Your task to perform on an android device: Show me recent news Image 0: 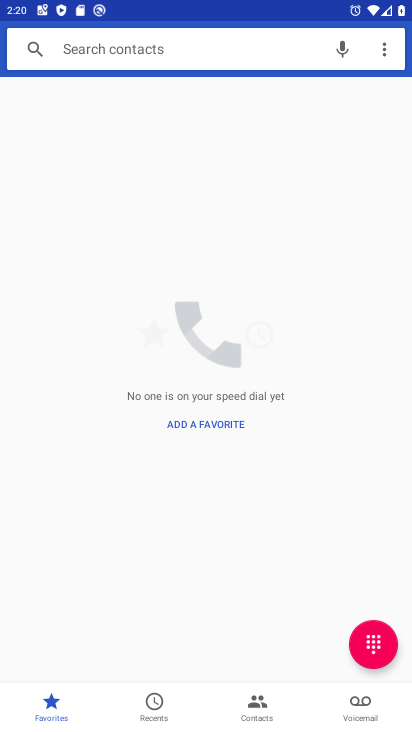
Step 0: press home button
Your task to perform on an android device: Show me recent news Image 1: 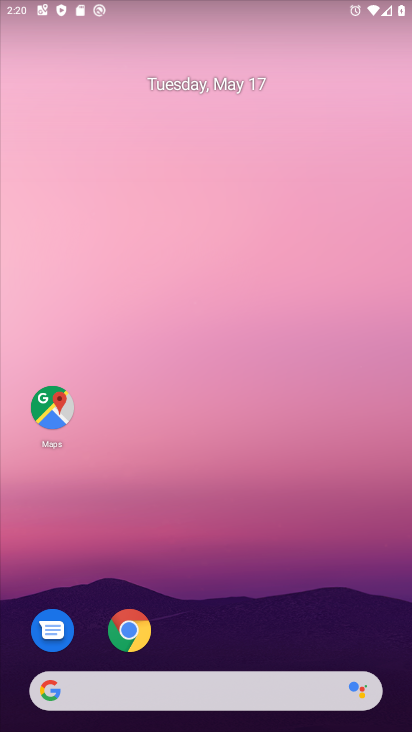
Step 1: drag from (347, 633) to (291, 235)
Your task to perform on an android device: Show me recent news Image 2: 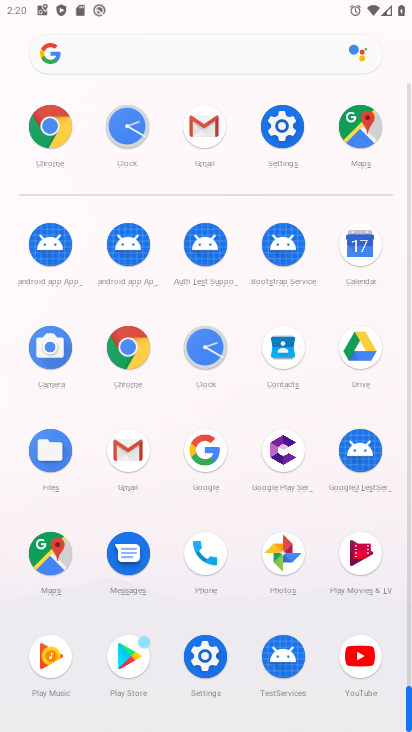
Step 2: click (141, 354)
Your task to perform on an android device: Show me recent news Image 3: 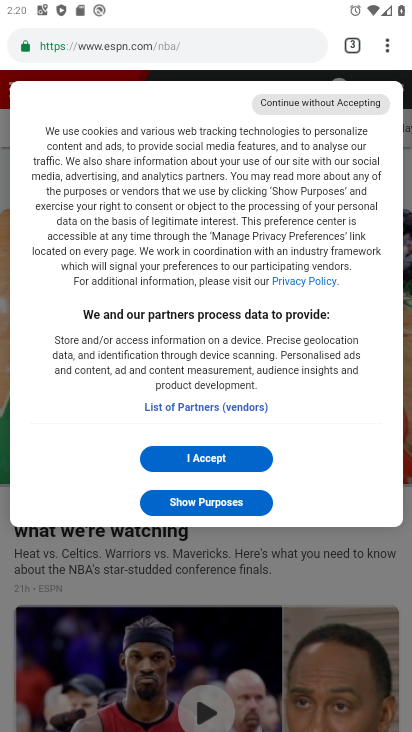
Step 3: click (166, 47)
Your task to perform on an android device: Show me recent news Image 4: 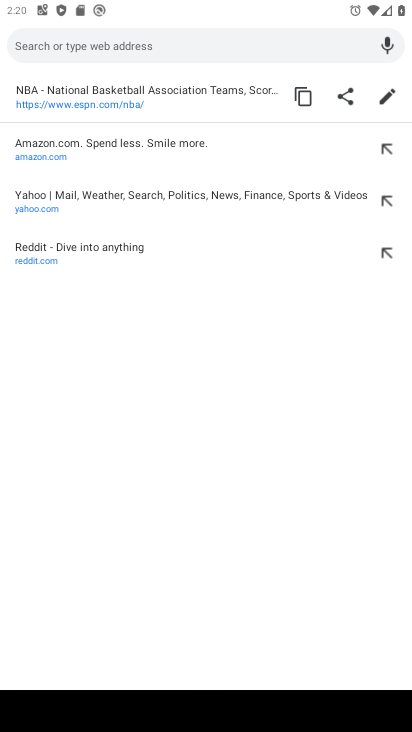
Step 4: type "recent news"
Your task to perform on an android device: Show me recent news Image 5: 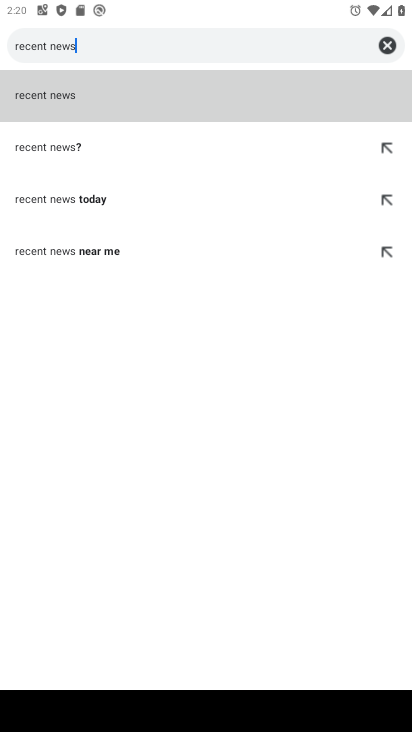
Step 5: click (115, 118)
Your task to perform on an android device: Show me recent news Image 6: 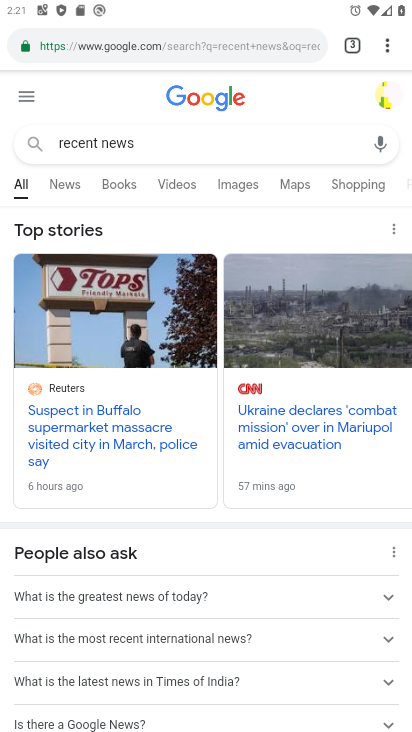
Step 6: task complete